Your task to perform on an android device: open app "VLC for Android" (install if not already installed) Image 0: 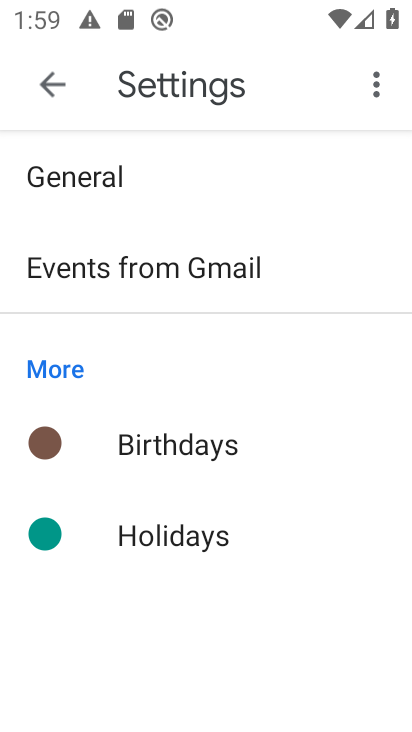
Step 0: press home button
Your task to perform on an android device: open app "VLC for Android" (install if not already installed) Image 1: 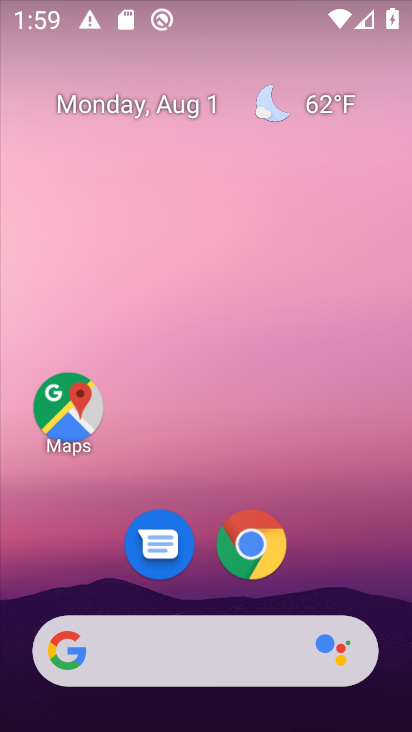
Step 1: drag from (397, 588) to (262, 119)
Your task to perform on an android device: open app "VLC for Android" (install if not already installed) Image 2: 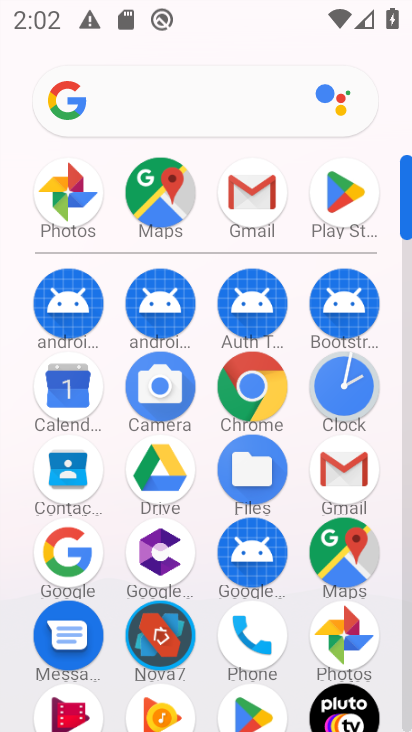
Step 2: click (337, 198)
Your task to perform on an android device: open app "VLC for Android" (install if not already installed) Image 3: 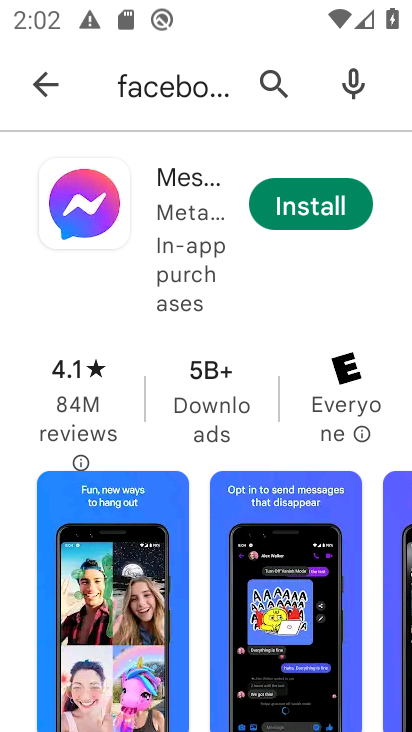
Step 3: press back button
Your task to perform on an android device: open app "VLC for Android" (install if not already installed) Image 4: 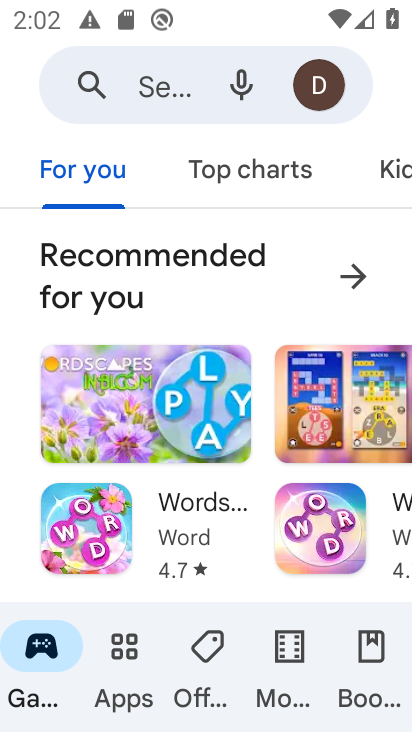
Step 4: click (134, 99)
Your task to perform on an android device: open app "VLC for Android" (install if not already installed) Image 5: 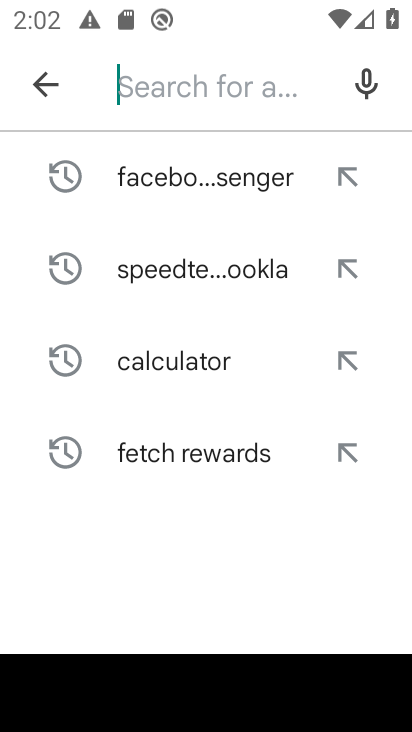
Step 5: type "VLC for Android"
Your task to perform on an android device: open app "VLC for Android" (install if not already installed) Image 6: 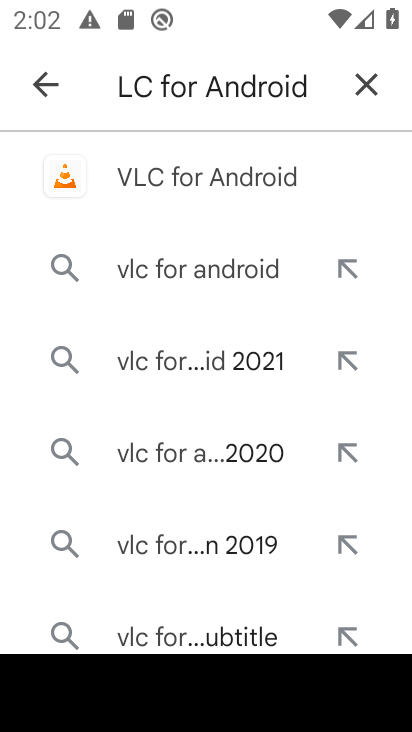
Step 6: click (191, 172)
Your task to perform on an android device: open app "VLC for Android" (install if not already installed) Image 7: 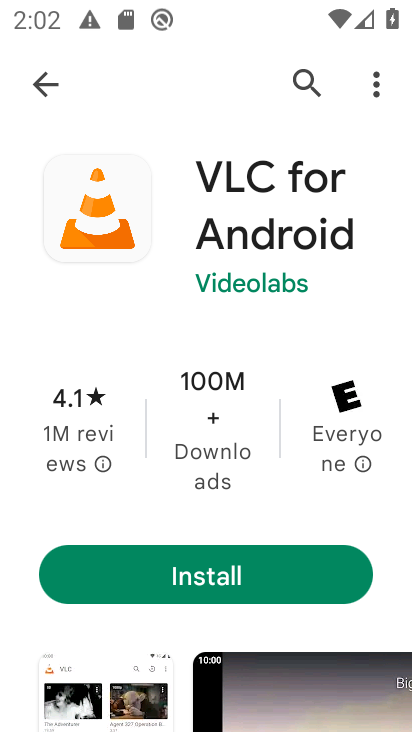
Step 7: task complete